Your task to perform on an android device: Go to wifi settings Image 0: 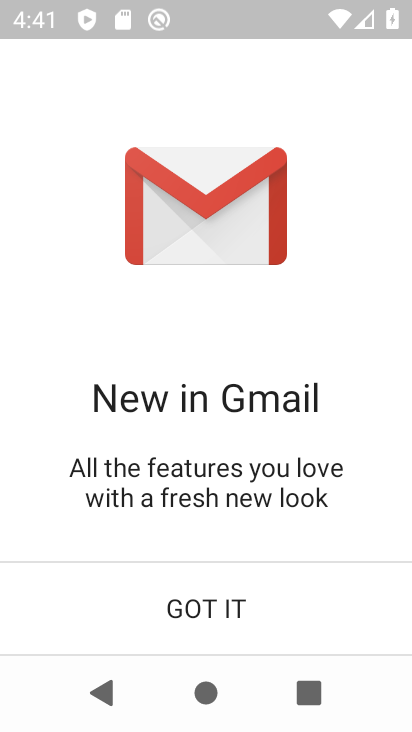
Step 0: click (246, 587)
Your task to perform on an android device: Go to wifi settings Image 1: 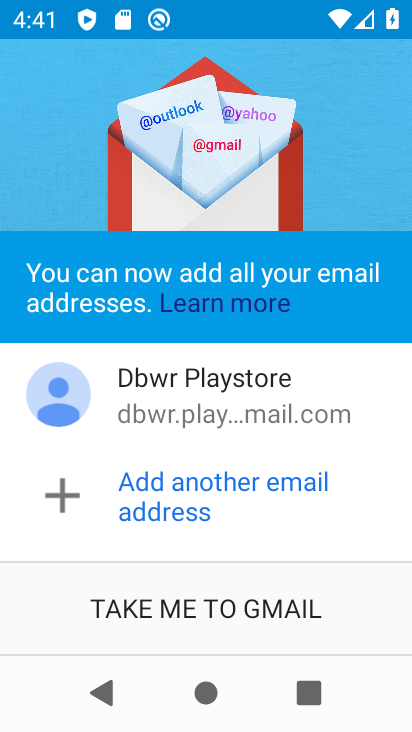
Step 1: click (234, 597)
Your task to perform on an android device: Go to wifi settings Image 2: 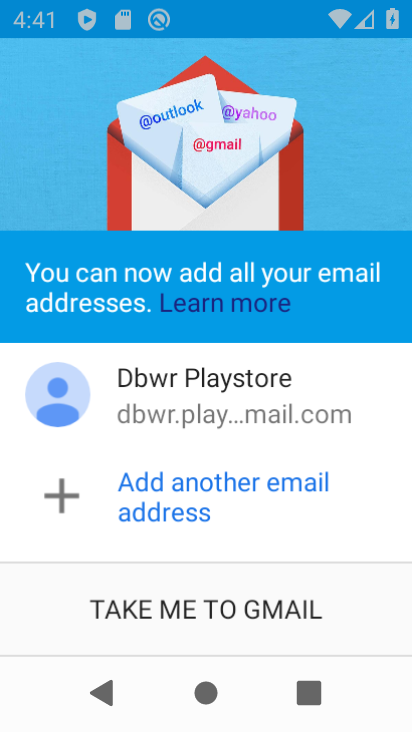
Step 2: click (232, 598)
Your task to perform on an android device: Go to wifi settings Image 3: 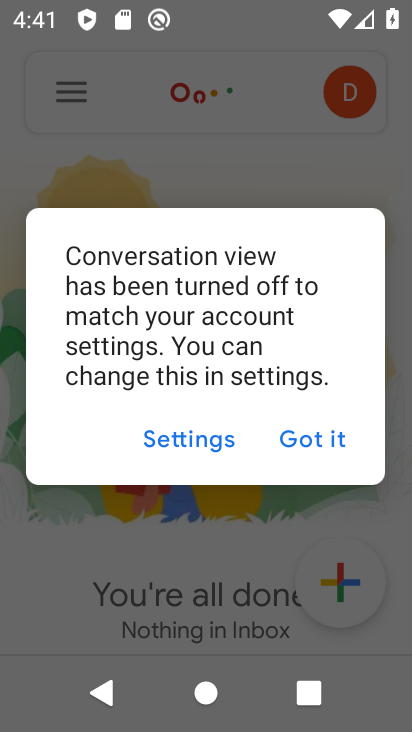
Step 3: click (182, 426)
Your task to perform on an android device: Go to wifi settings Image 4: 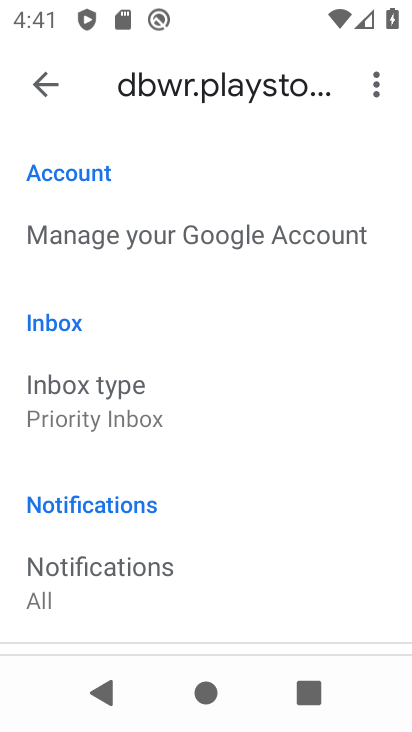
Step 4: click (43, 65)
Your task to perform on an android device: Go to wifi settings Image 5: 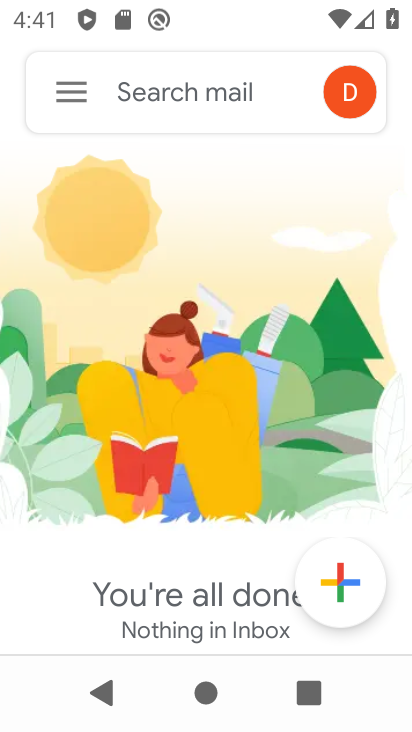
Step 5: press back button
Your task to perform on an android device: Go to wifi settings Image 6: 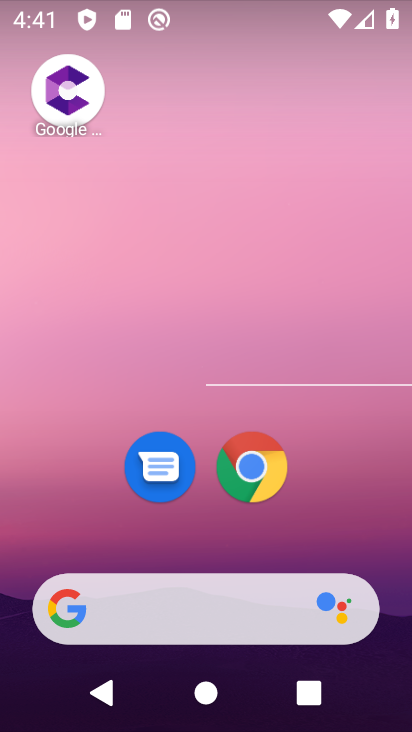
Step 6: drag from (243, 646) to (160, 44)
Your task to perform on an android device: Go to wifi settings Image 7: 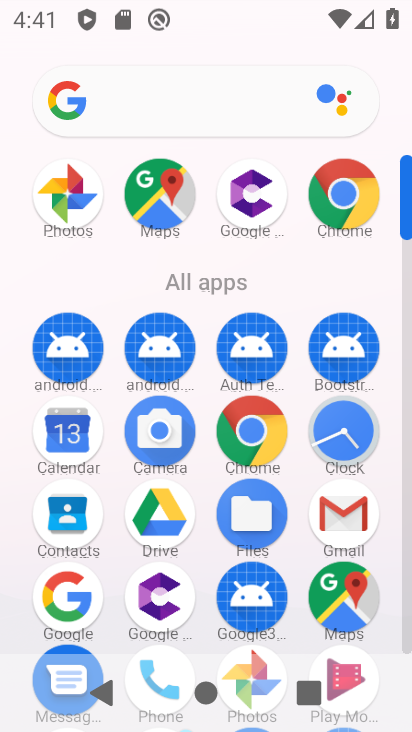
Step 7: drag from (274, 482) to (187, 48)
Your task to perform on an android device: Go to wifi settings Image 8: 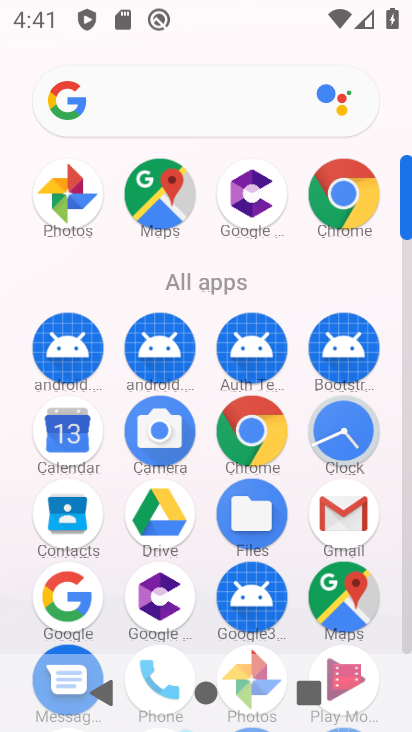
Step 8: click (398, 430)
Your task to perform on an android device: Go to wifi settings Image 9: 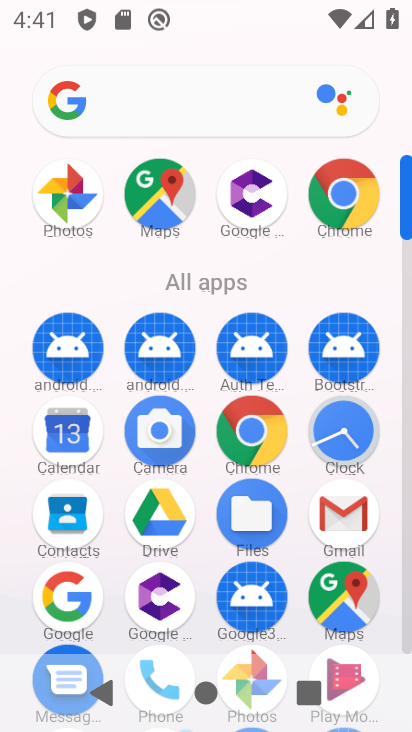
Step 9: click (401, 419)
Your task to perform on an android device: Go to wifi settings Image 10: 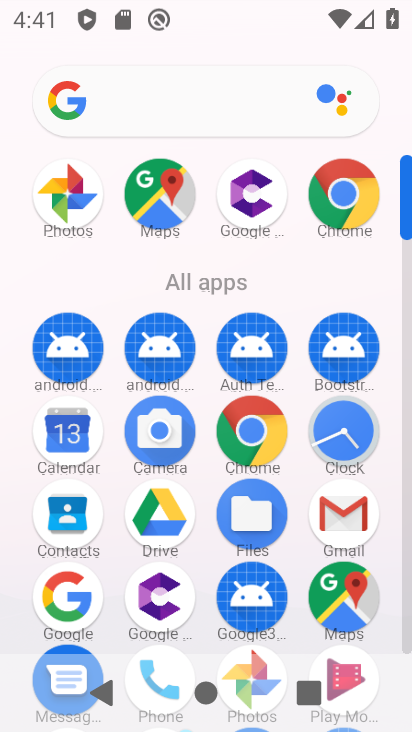
Step 10: click (397, 412)
Your task to perform on an android device: Go to wifi settings Image 11: 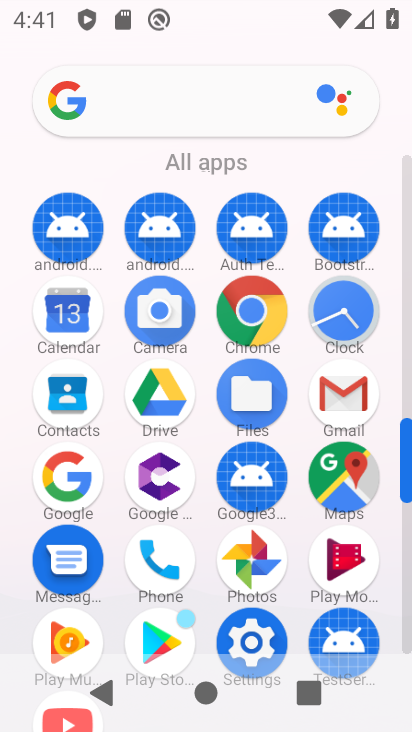
Step 11: click (388, 278)
Your task to perform on an android device: Go to wifi settings Image 12: 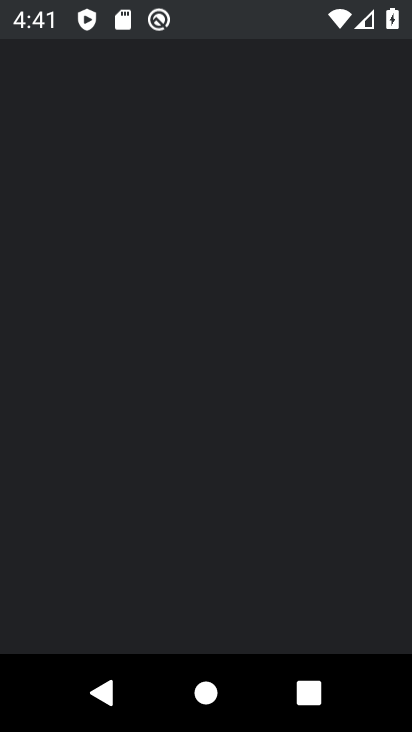
Step 12: click (263, 634)
Your task to perform on an android device: Go to wifi settings Image 13: 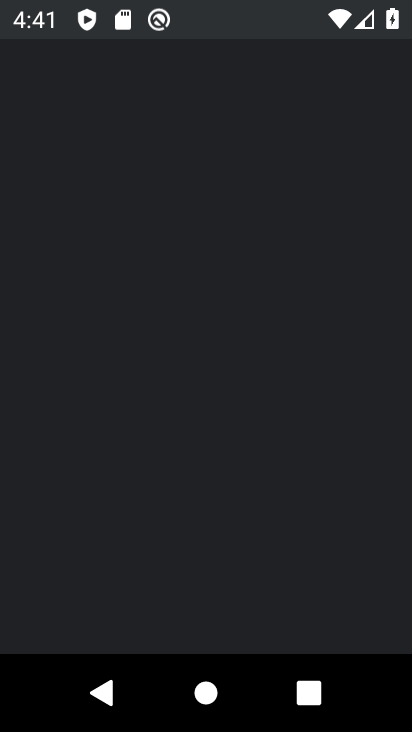
Step 13: click (277, 636)
Your task to perform on an android device: Go to wifi settings Image 14: 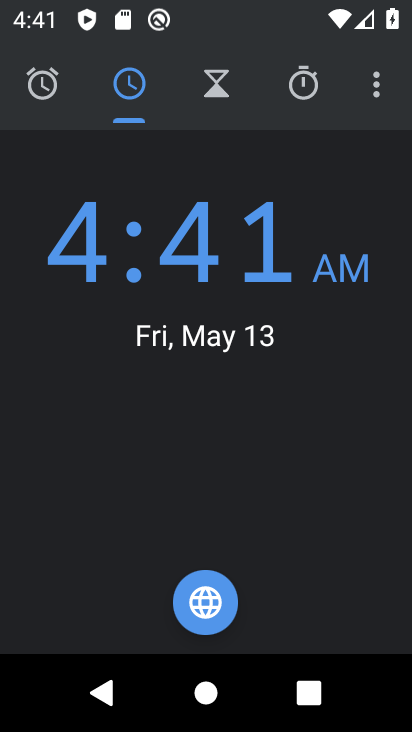
Step 14: press home button
Your task to perform on an android device: Go to wifi settings Image 15: 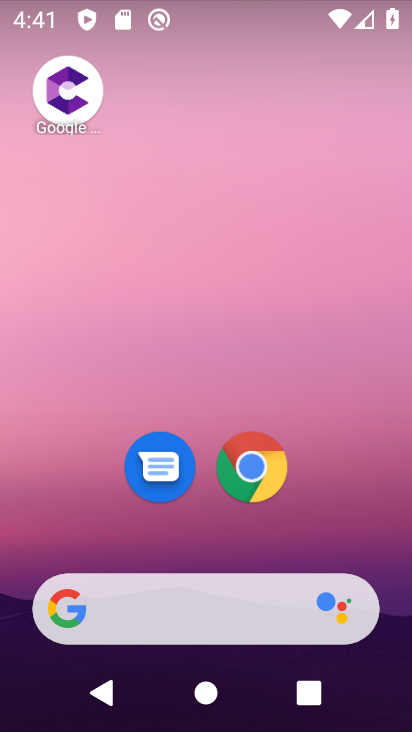
Step 15: drag from (206, 410) to (174, 143)
Your task to perform on an android device: Go to wifi settings Image 16: 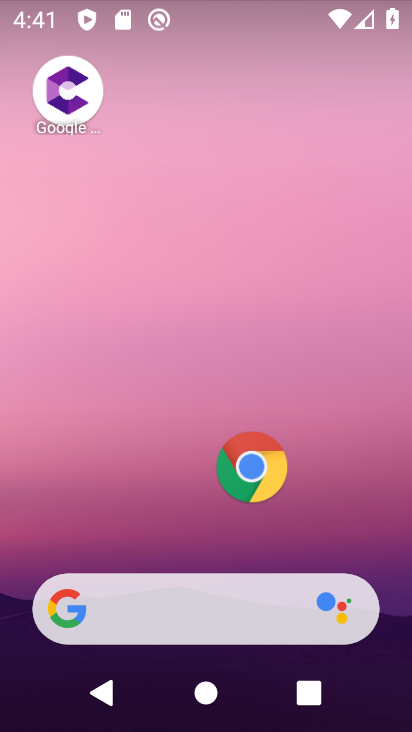
Step 16: click (183, 325)
Your task to perform on an android device: Go to wifi settings Image 17: 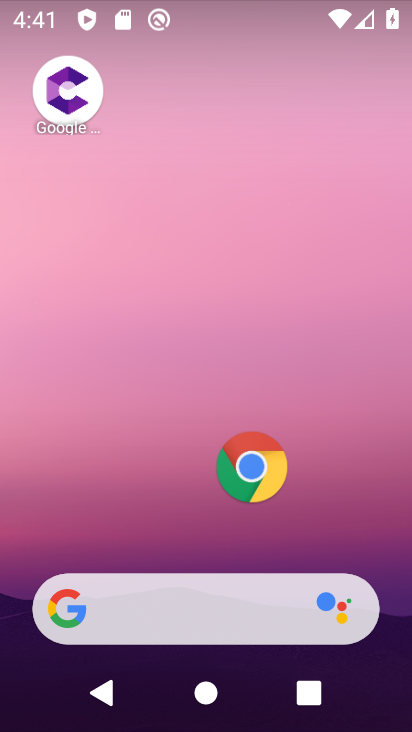
Step 17: click (191, 299)
Your task to perform on an android device: Go to wifi settings Image 18: 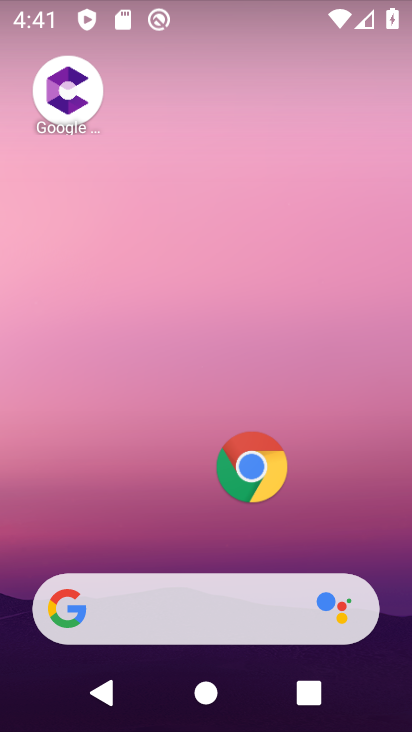
Step 18: click (192, 299)
Your task to perform on an android device: Go to wifi settings Image 19: 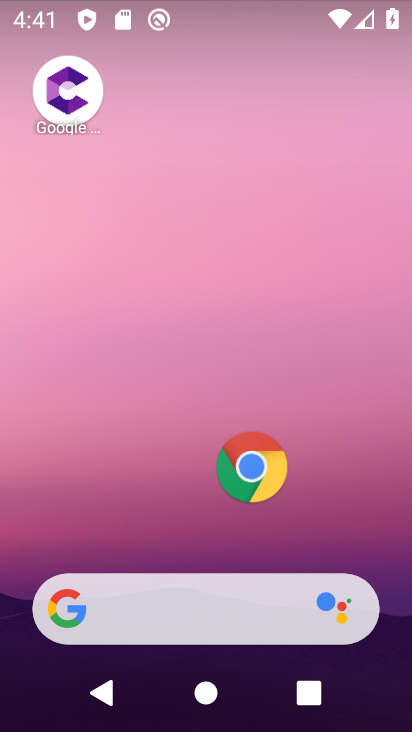
Step 19: drag from (268, 534) to (131, 32)
Your task to perform on an android device: Go to wifi settings Image 20: 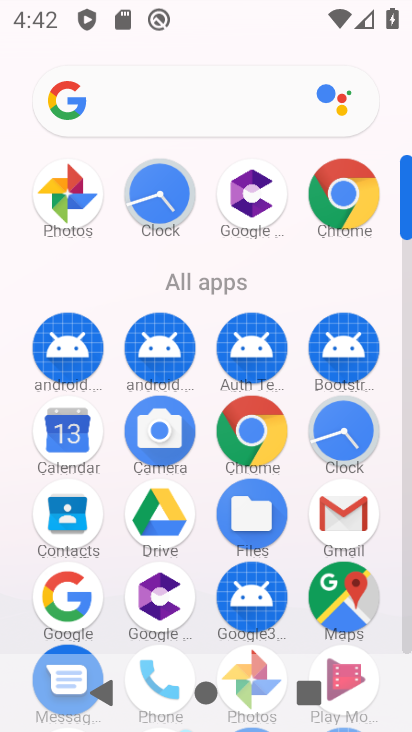
Step 20: drag from (228, 480) to (137, 81)
Your task to perform on an android device: Go to wifi settings Image 21: 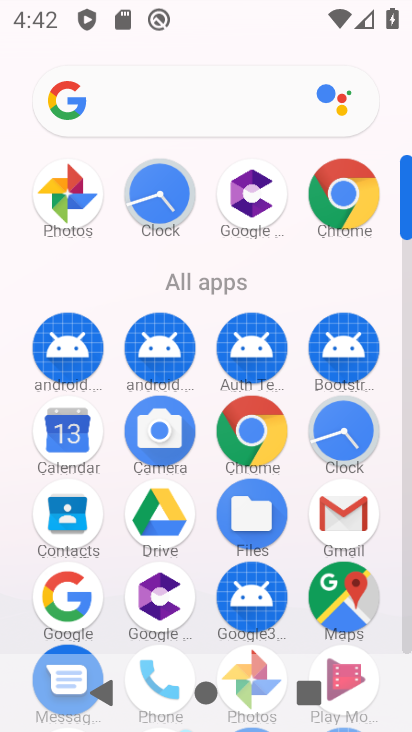
Step 21: drag from (215, 551) to (167, 116)
Your task to perform on an android device: Go to wifi settings Image 22: 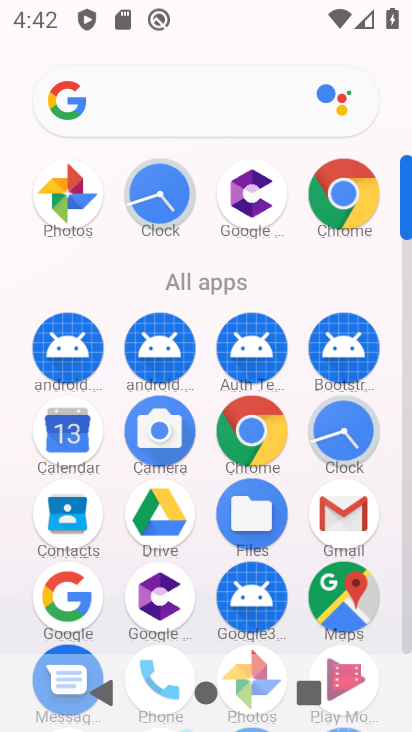
Step 22: drag from (219, 452) to (190, 101)
Your task to perform on an android device: Go to wifi settings Image 23: 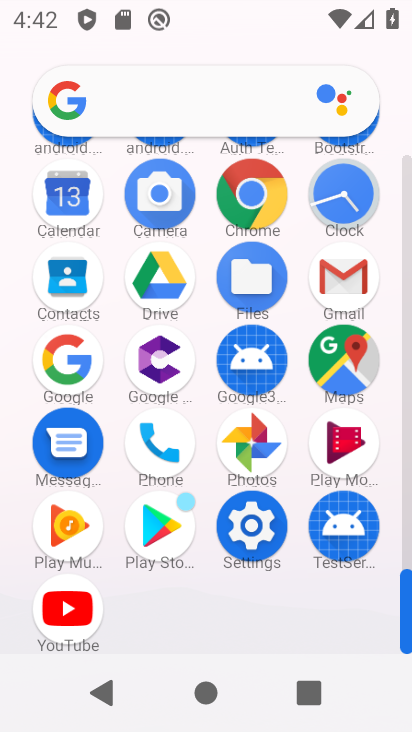
Step 23: click (250, 533)
Your task to perform on an android device: Go to wifi settings Image 24: 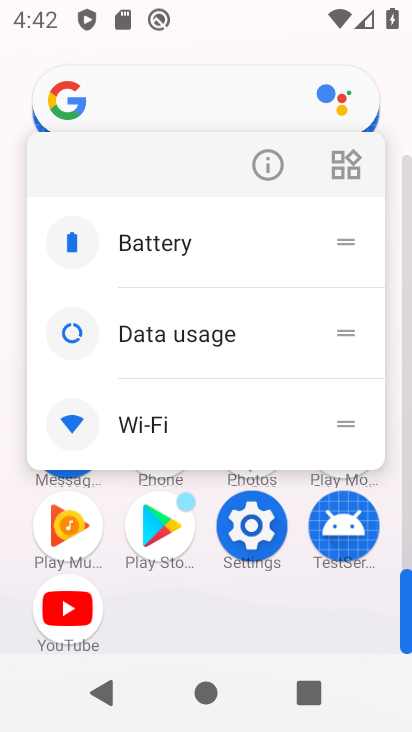
Step 24: click (254, 520)
Your task to perform on an android device: Go to wifi settings Image 25: 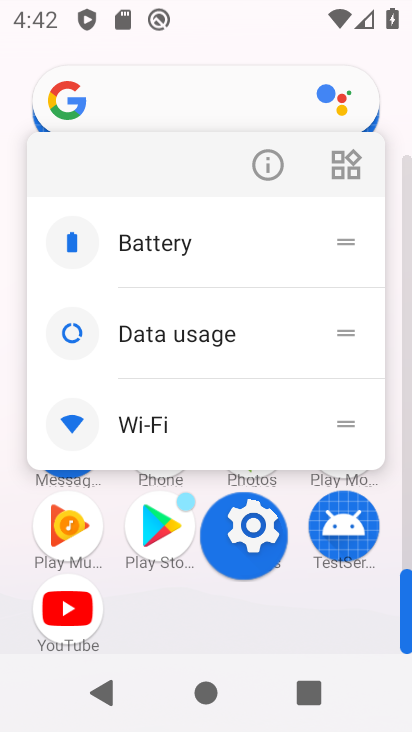
Step 25: click (241, 524)
Your task to perform on an android device: Go to wifi settings Image 26: 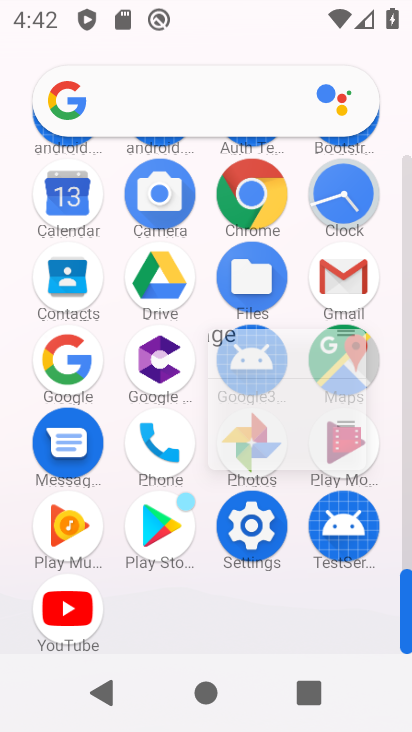
Step 26: click (240, 522)
Your task to perform on an android device: Go to wifi settings Image 27: 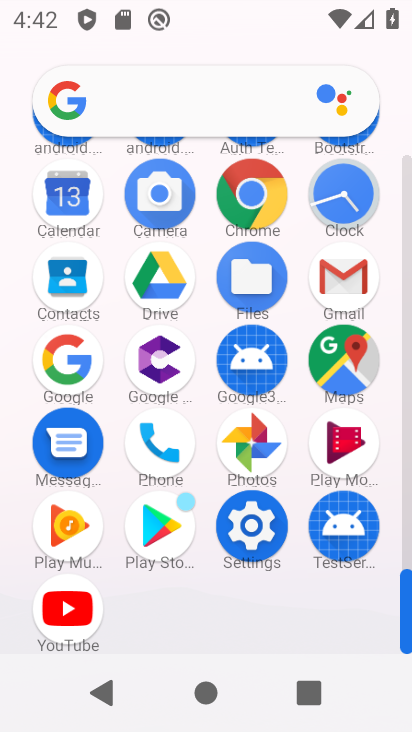
Step 27: click (240, 521)
Your task to perform on an android device: Go to wifi settings Image 28: 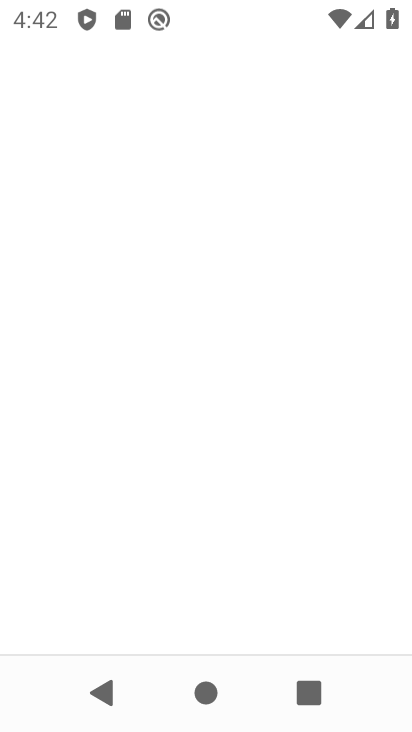
Step 28: click (239, 512)
Your task to perform on an android device: Go to wifi settings Image 29: 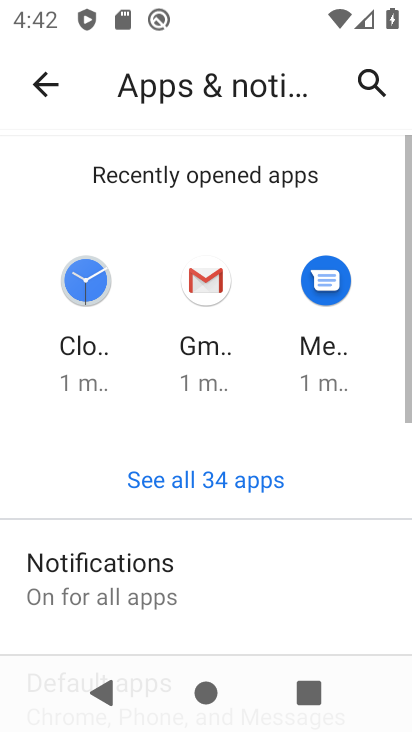
Step 29: click (48, 74)
Your task to perform on an android device: Go to wifi settings Image 30: 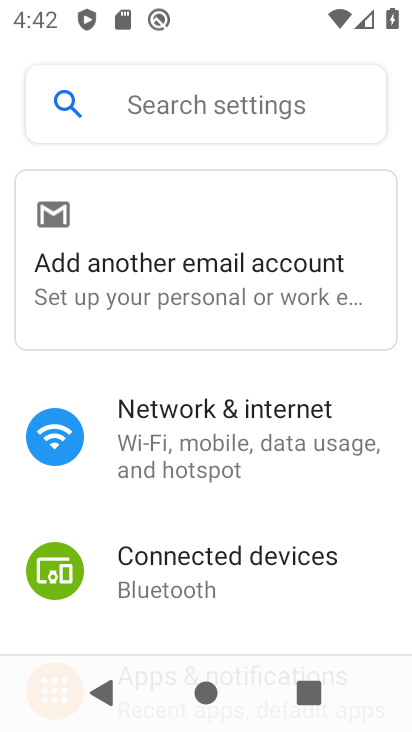
Step 30: click (212, 441)
Your task to perform on an android device: Go to wifi settings Image 31: 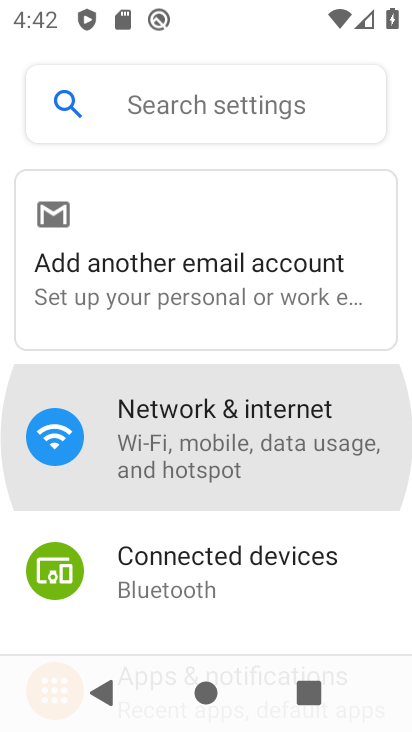
Step 31: click (212, 441)
Your task to perform on an android device: Go to wifi settings Image 32: 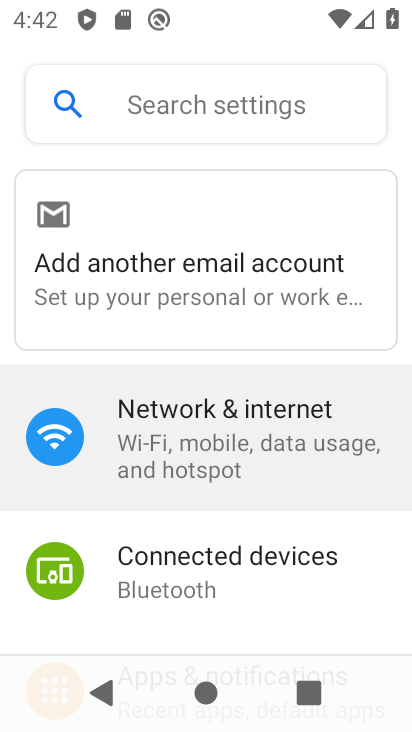
Step 32: click (212, 441)
Your task to perform on an android device: Go to wifi settings Image 33: 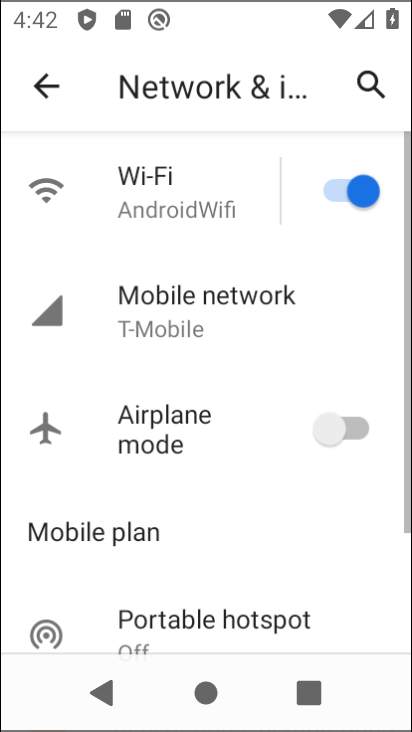
Step 33: click (212, 441)
Your task to perform on an android device: Go to wifi settings Image 34: 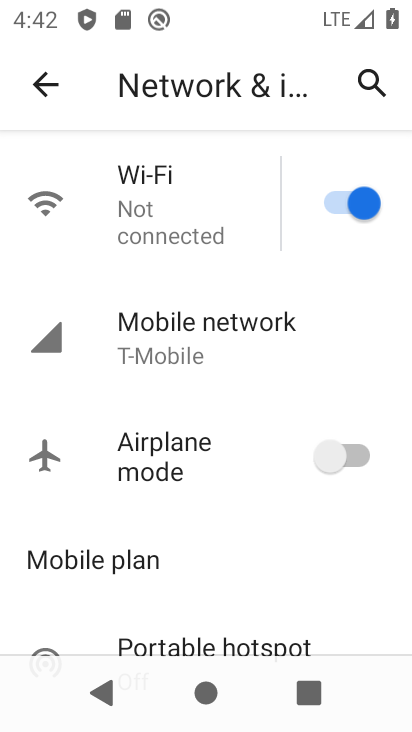
Step 34: task complete